Your task to perform on an android device: turn smart compose on in the gmail app Image 0: 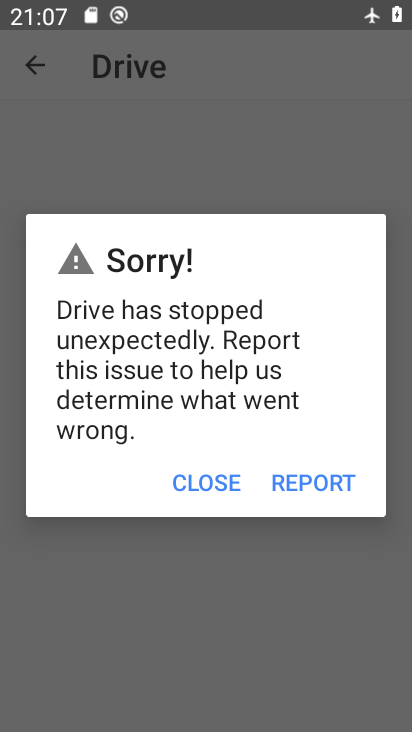
Step 0: press back button
Your task to perform on an android device: turn smart compose on in the gmail app Image 1: 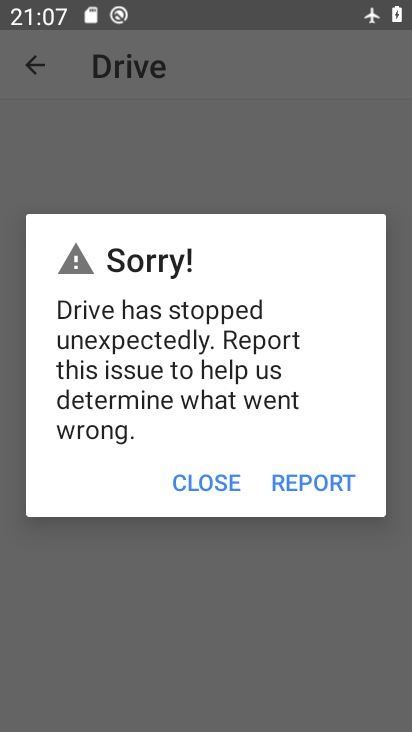
Step 1: press back button
Your task to perform on an android device: turn smart compose on in the gmail app Image 2: 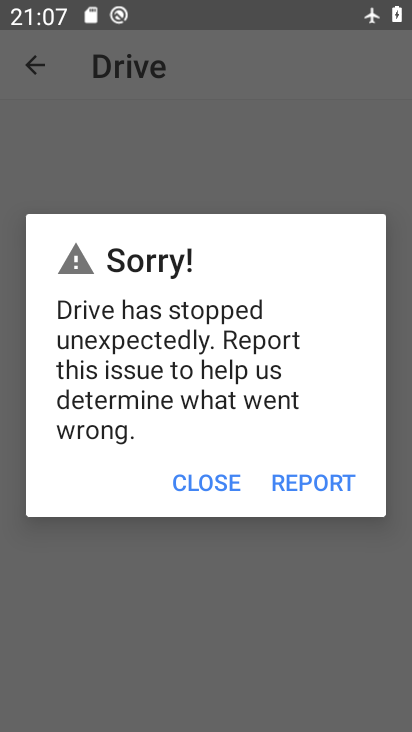
Step 2: press back button
Your task to perform on an android device: turn smart compose on in the gmail app Image 3: 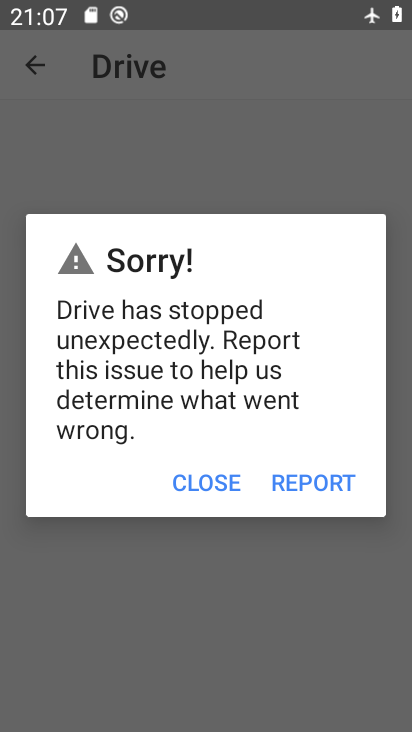
Step 3: press back button
Your task to perform on an android device: turn smart compose on in the gmail app Image 4: 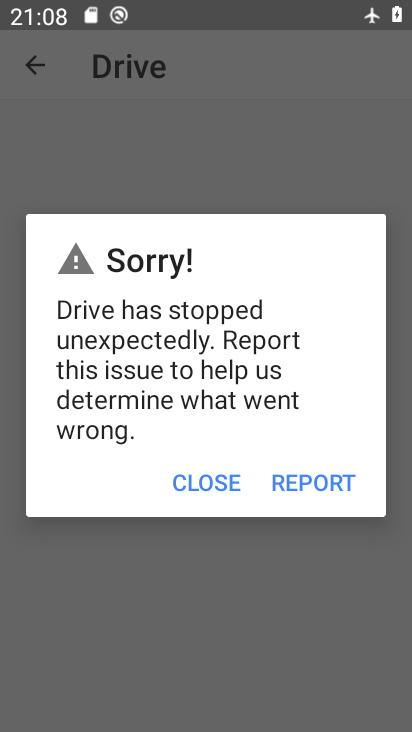
Step 4: click (201, 479)
Your task to perform on an android device: turn smart compose on in the gmail app Image 5: 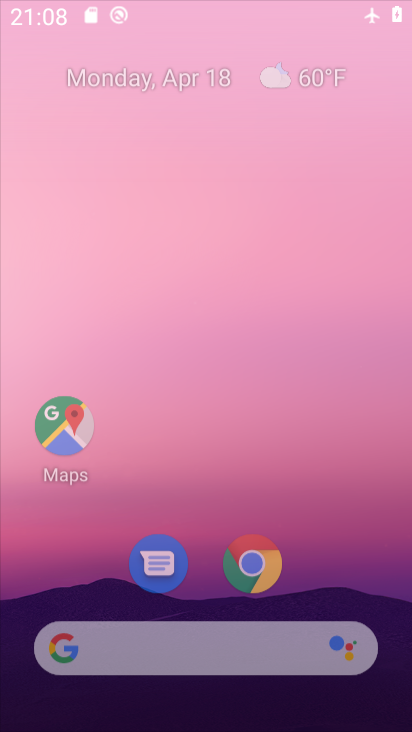
Step 5: press back button
Your task to perform on an android device: turn smart compose on in the gmail app Image 6: 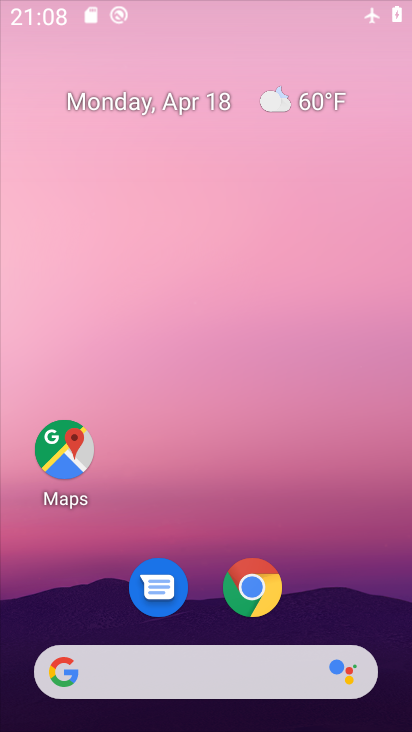
Step 6: press back button
Your task to perform on an android device: turn smart compose on in the gmail app Image 7: 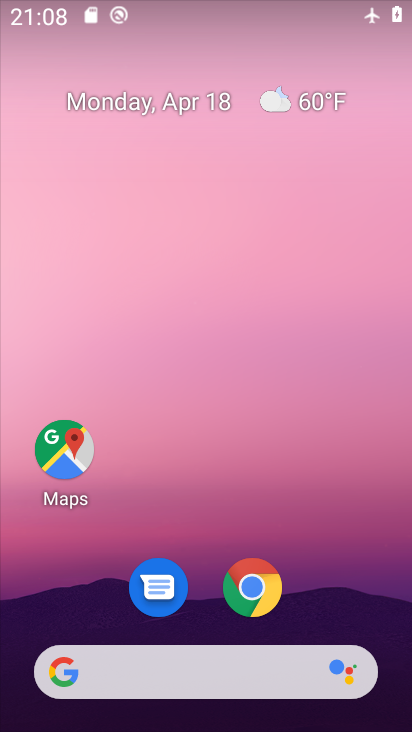
Step 7: press back button
Your task to perform on an android device: turn smart compose on in the gmail app Image 8: 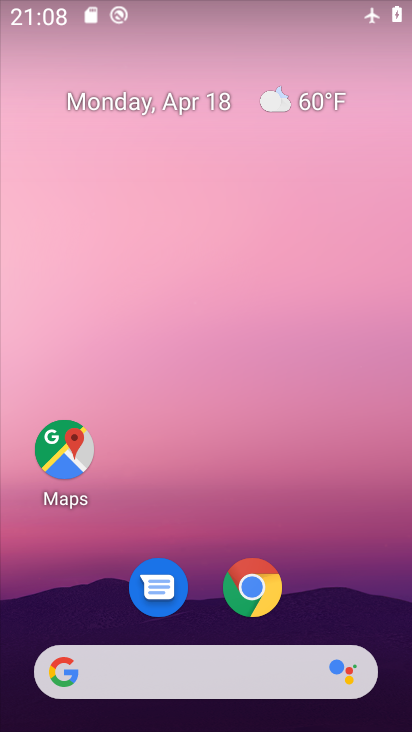
Step 8: drag from (357, 563) to (277, 81)
Your task to perform on an android device: turn smart compose on in the gmail app Image 9: 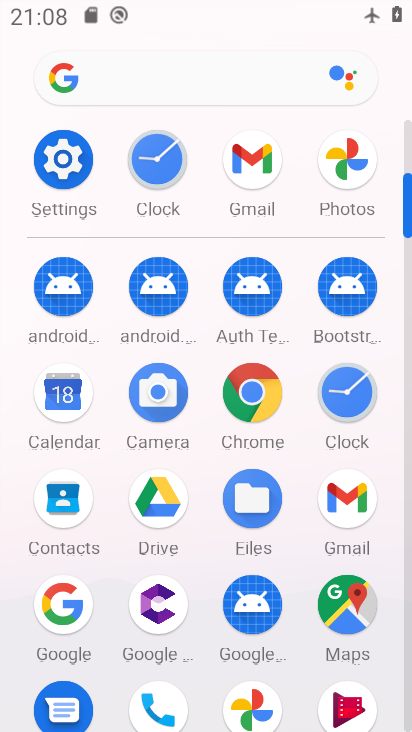
Step 9: click (261, 242)
Your task to perform on an android device: turn smart compose on in the gmail app Image 10: 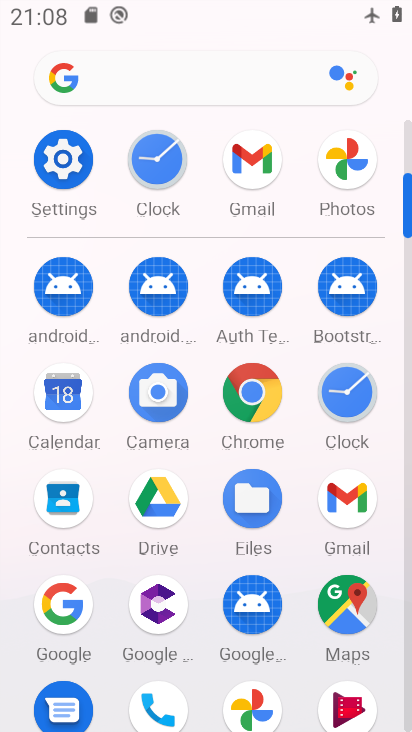
Step 10: click (258, 171)
Your task to perform on an android device: turn smart compose on in the gmail app Image 11: 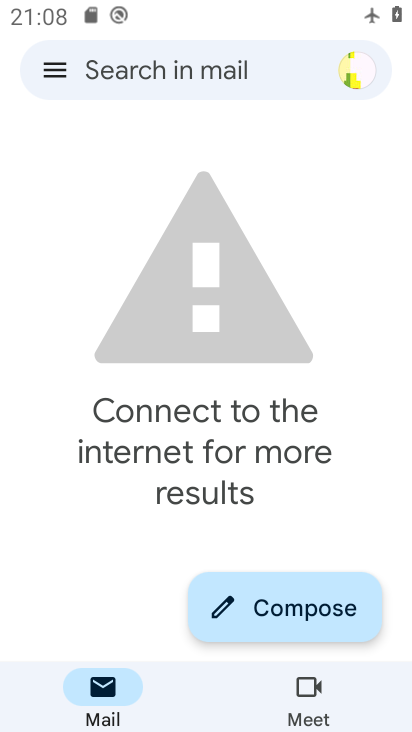
Step 11: click (60, 68)
Your task to perform on an android device: turn smart compose on in the gmail app Image 12: 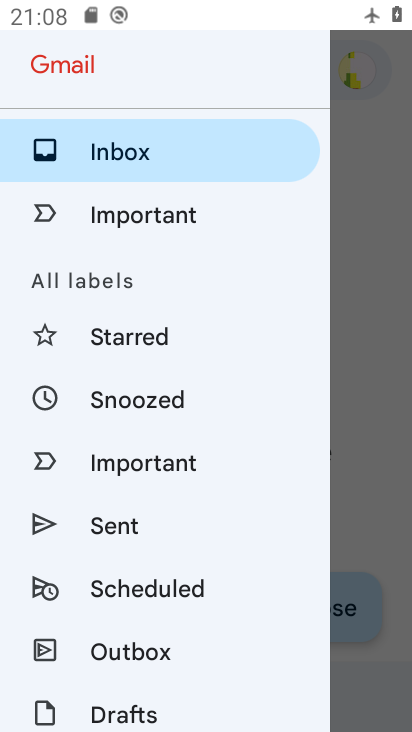
Step 12: drag from (171, 637) to (185, 59)
Your task to perform on an android device: turn smart compose on in the gmail app Image 13: 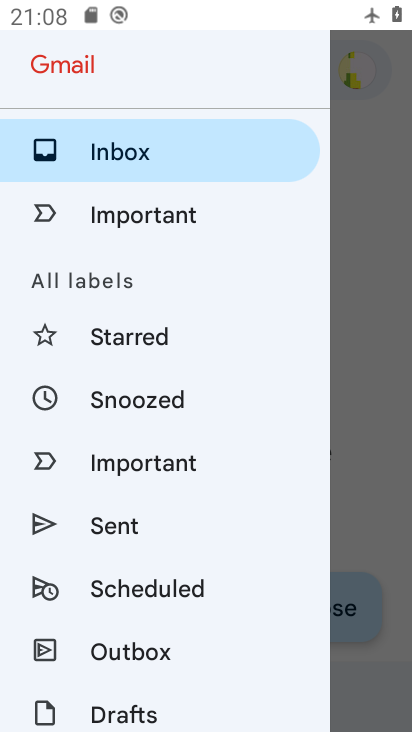
Step 13: drag from (167, 573) to (195, 31)
Your task to perform on an android device: turn smart compose on in the gmail app Image 14: 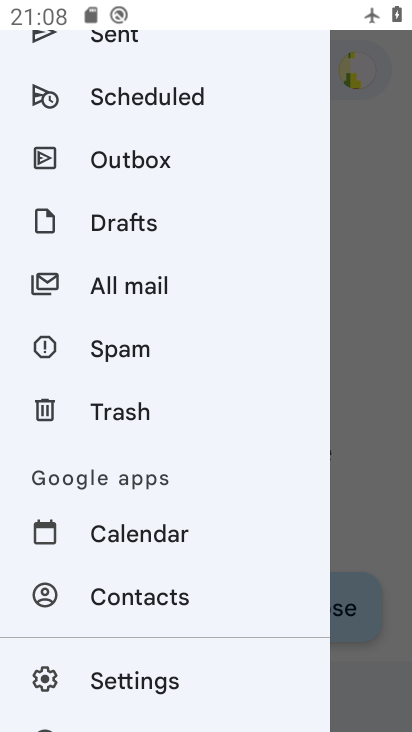
Step 14: drag from (180, 616) to (194, 237)
Your task to perform on an android device: turn smart compose on in the gmail app Image 15: 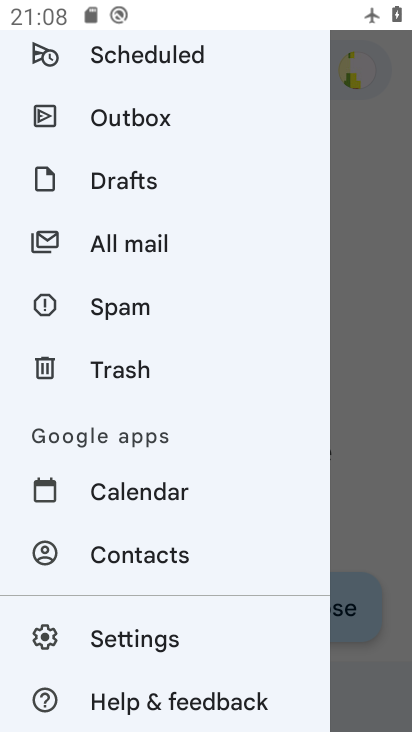
Step 15: click (151, 632)
Your task to perform on an android device: turn smart compose on in the gmail app Image 16: 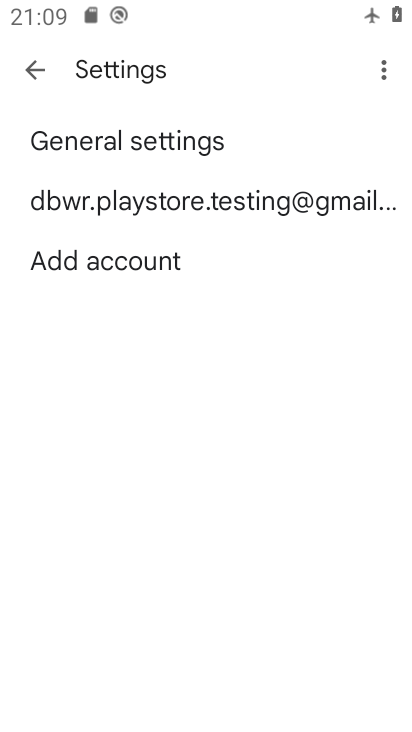
Step 16: click (78, 185)
Your task to perform on an android device: turn smart compose on in the gmail app Image 17: 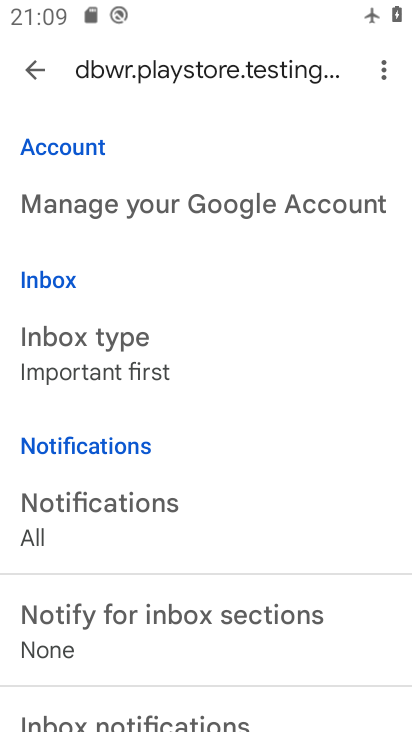
Step 17: drag from (234, 577) to (212, 128)
Your task to perform on an android device: turn smart compose on in the gmail app Image 18: 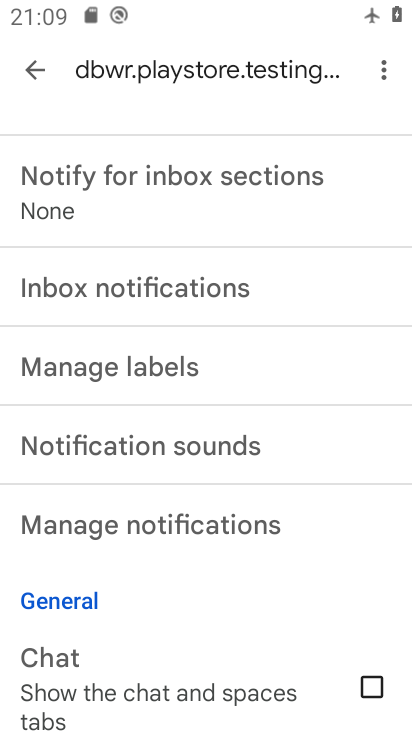
Step 18: click (224, 550)
Your task to perform on an android device: turn smart compose on in the gmail app Image 19: 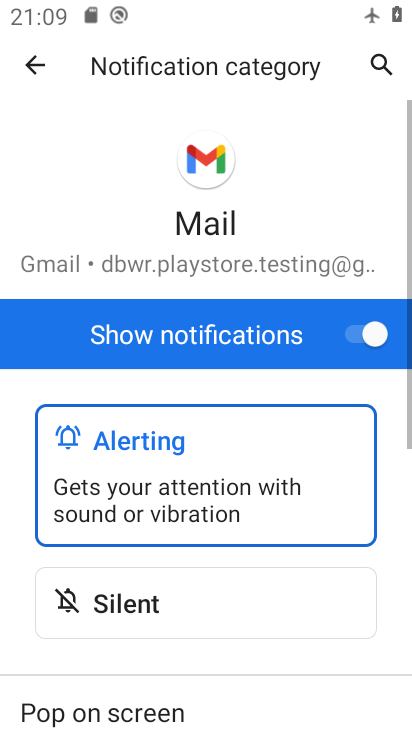
Step 19: drag from (212, 624) to (154, 229)
Your task to perform on an android device: turn smart compose on in the gmail app Image 20: 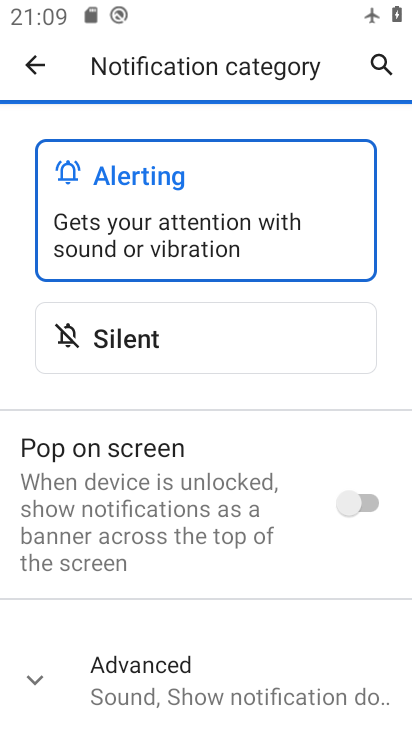
Step 20: click (38, 56)
Your task to perform on an android device: turn smart compose on in the gmail app Image 21: 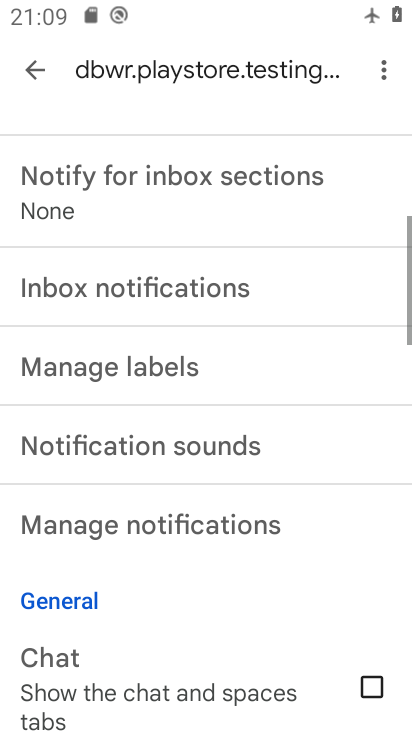
Step 21: task complete